Your task to perform on an android device: turn on javascript in the chrome app Image 0: 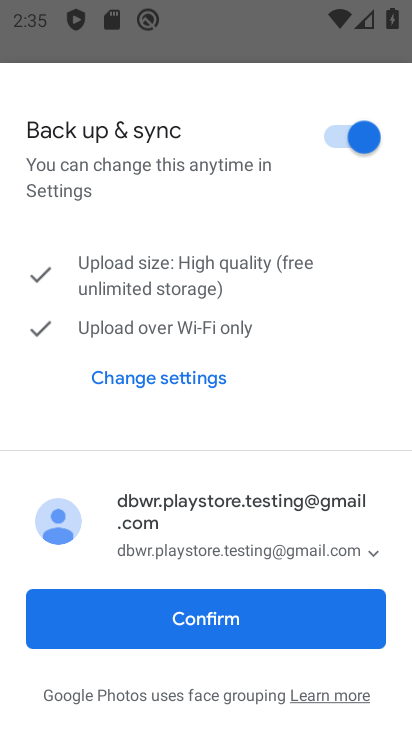
Step 0: press home button
Your task to perform on an android device: turn on javascript in the chrome app Image 1: 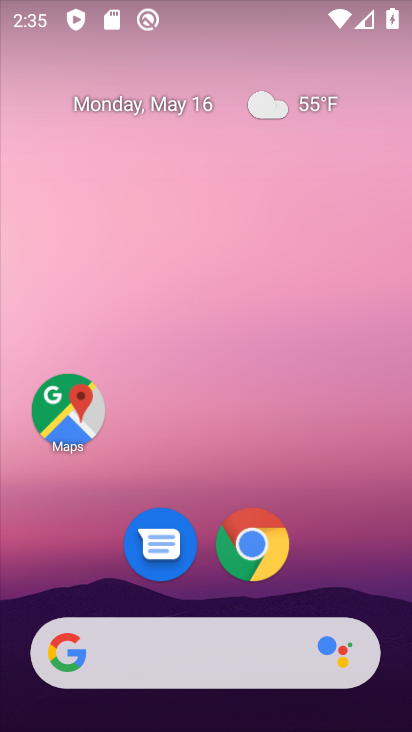
Step 1: click (245, 529)
Your task to perform on an android device: turn on javascript in the chrome app Image 2: 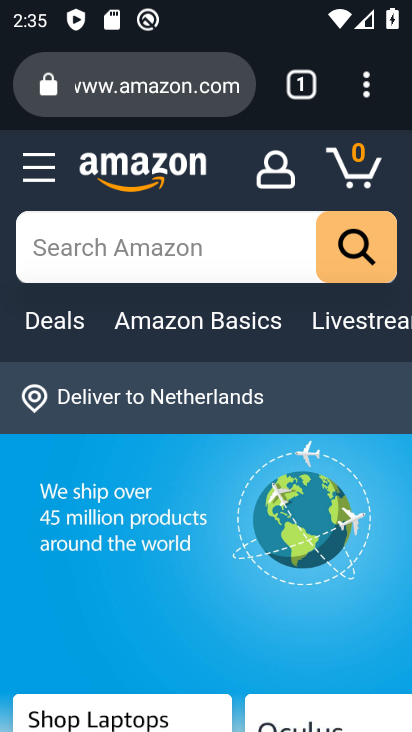
Step 2: drag from (371, 91) to (125, 597)
Your task to perform on an android device: turn on javascript in the chrome app Image 3: 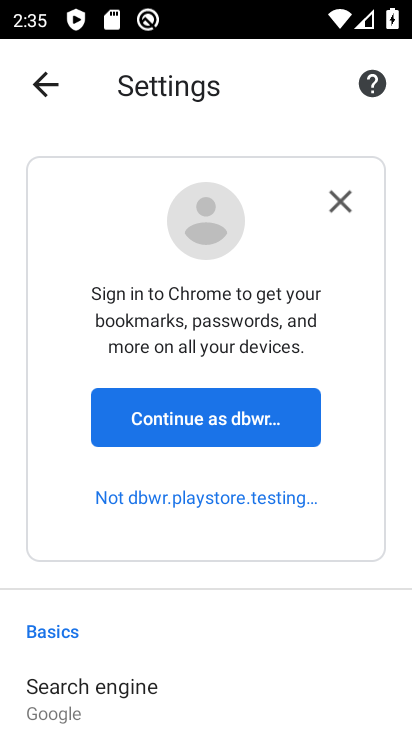
Step 3: drag from (204, 658) to (228, 318)
Your task to perform on an android device: turn on javascript in the chrome app Image 4: 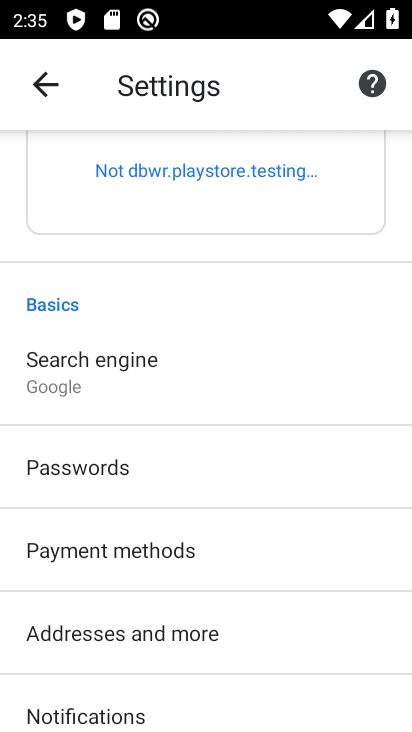
Step 4: drag from (234, 621) to (218, 270)
Your task to perform on an android device: turn on javascript in the chrome app Image 5: 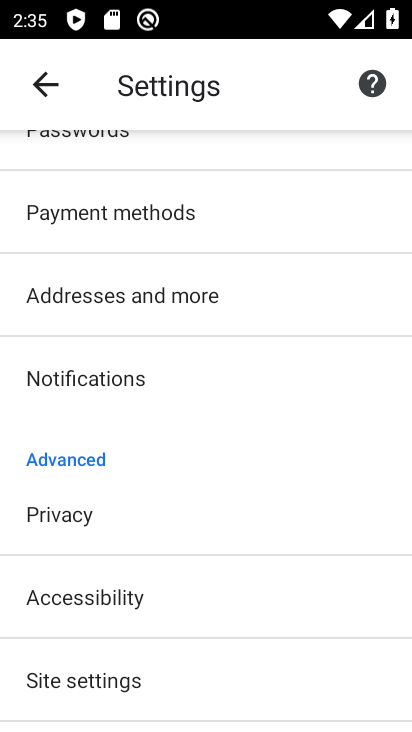
Step 5: click (133, 675)
Your task to perform on an android device: turn on javascript in the chrome app Image 6: 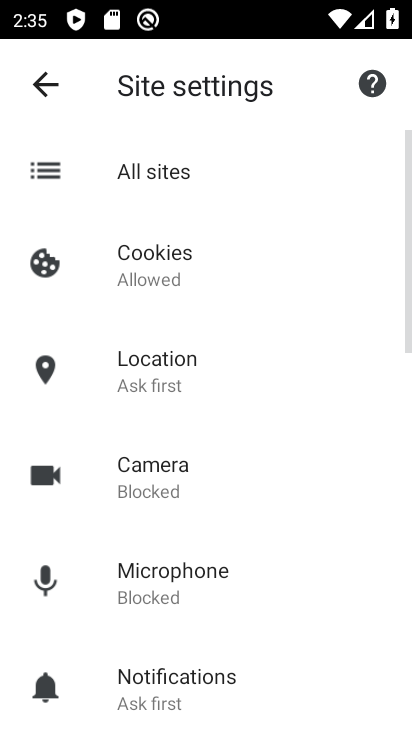
Step 6: drag from (133, 666) to (204, 309)
Your task to perform on an android device: turn on javascript in the chrome app Image 7: 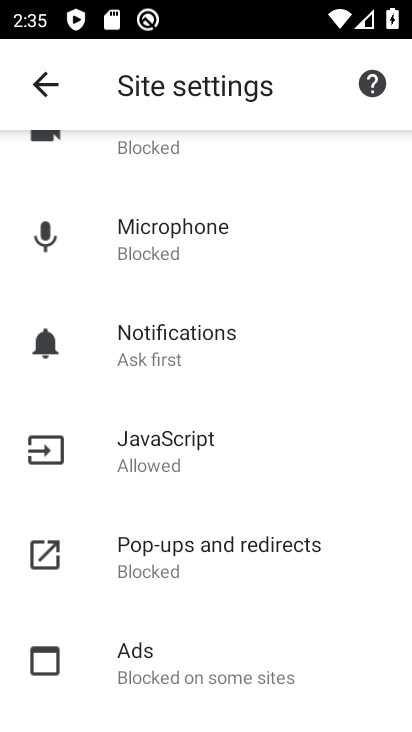
Step 7: click (164, 456)
Your task to perform on an android device: turn on javascript in the chrome app Image 8: 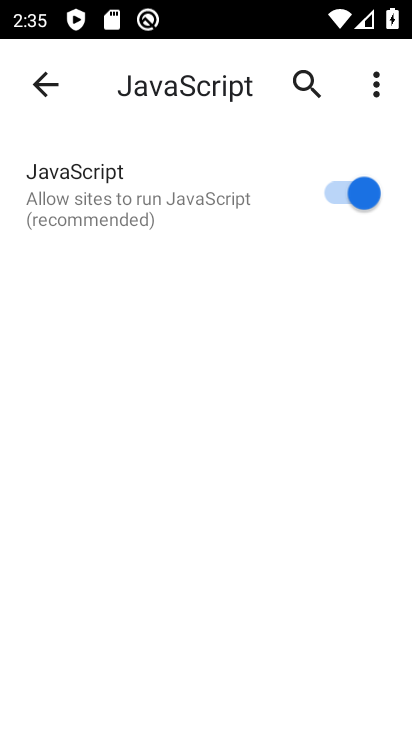
Step 8: task complete